Your task to perform on an android device: Open Chrome and go to settings Image 0: 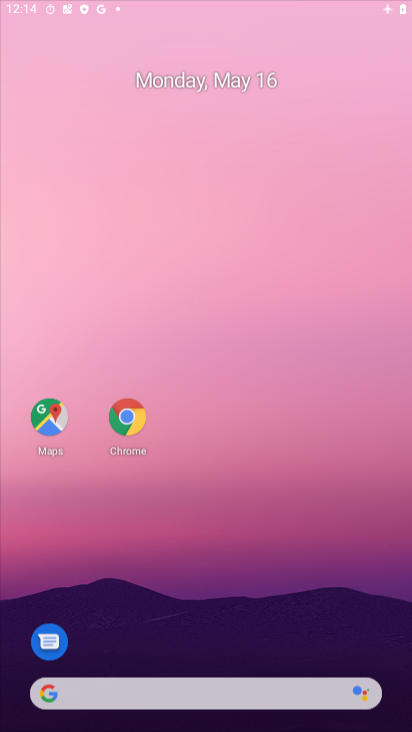
Step 0: drag from (241, 616) to (299, 162)
Your task to perform on an android device: Open Chrome and go to settings Image 1: 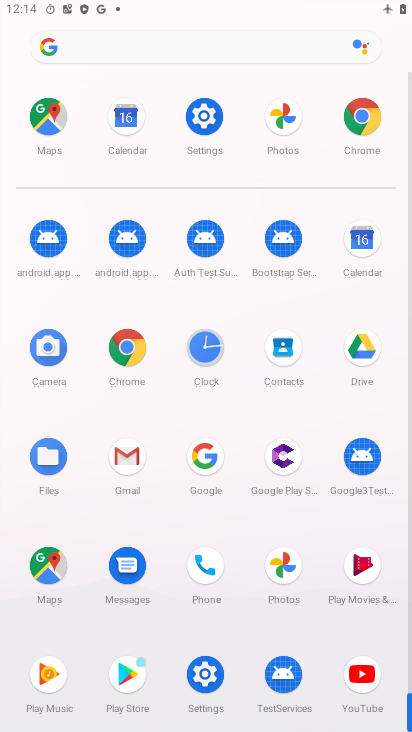
Step 1: click (210, 105)
Your task to perform on an android device: Open Chrome and go to settings Image 2: 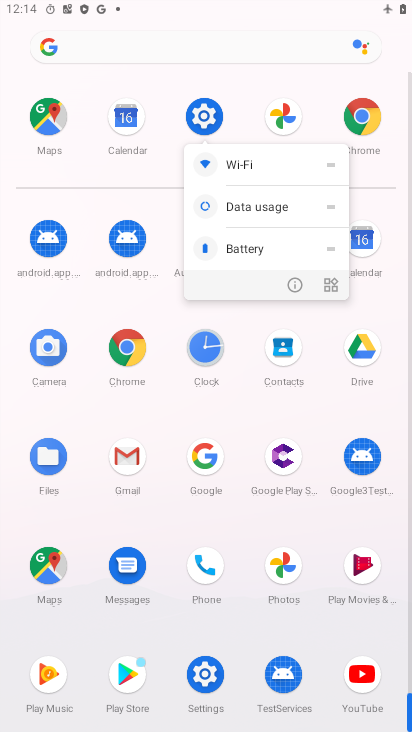
Step 2: click (365, 110)
Your task to perform on an android device: Open Chrome and go to settings Image 3: 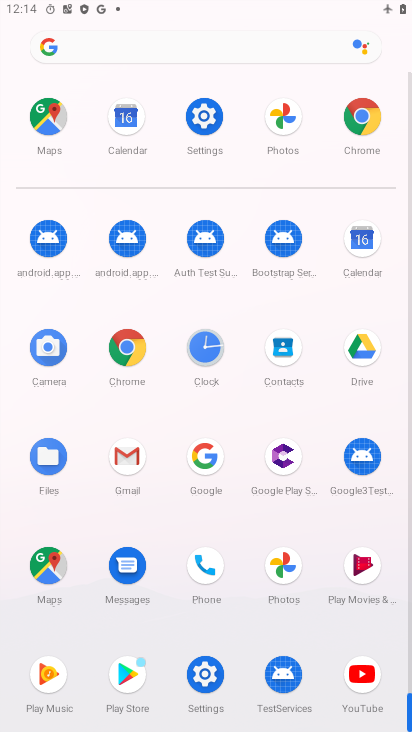
Step 3: click (365, 110)
Your task to perform on an android device: Open Chrome and go to settings Image 4: 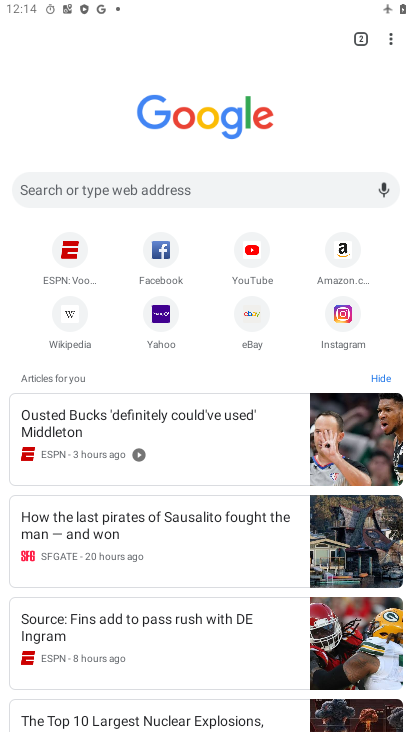
Step 4: click (387, 27)
Your task to perform on an android device: Open Chrome and go to settings Image 5: 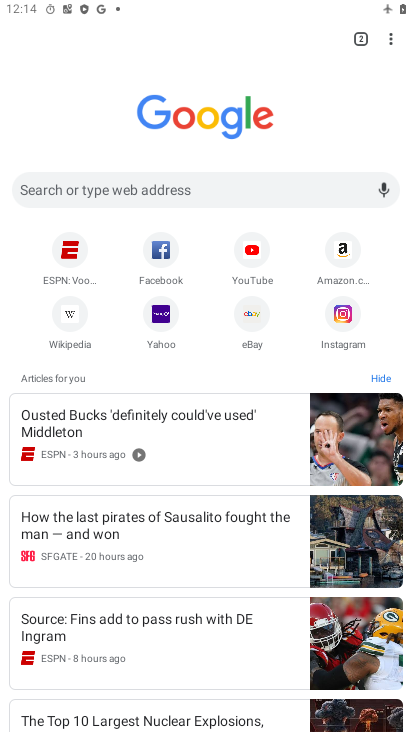
Step 5: click (391, 38)
Your task to perform on an android device: Open Chrome and go to settings Image 6: 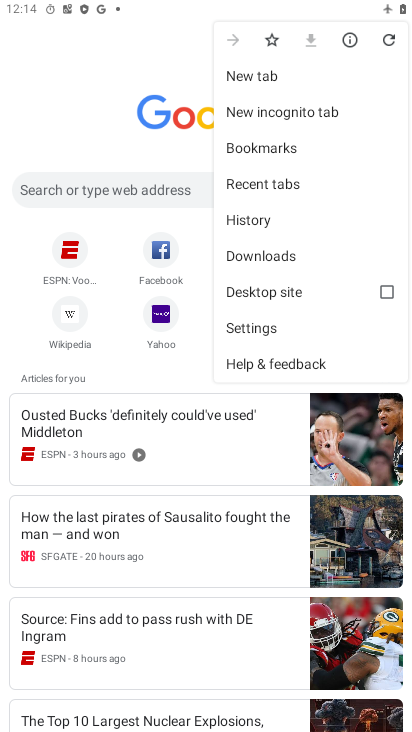
Step 6: click (290, 324)
Your task to perform on an android device: Open Chrome and go to settings Image 7: 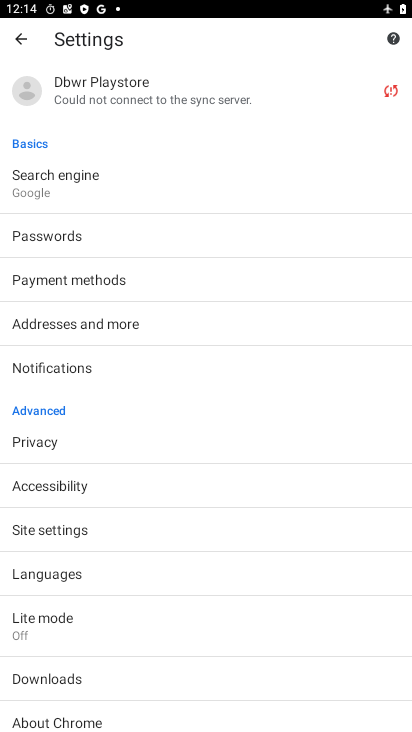
Step 7: task complete